Your task to perform on an android device: create a new album in the google photos Image 0: 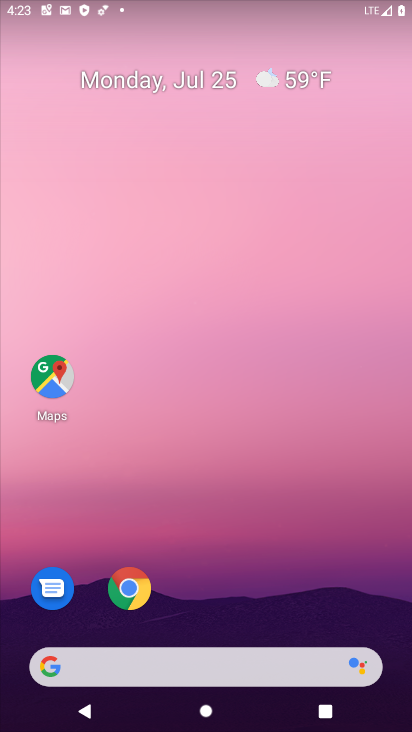
Step 0: drag from (324, 576) to (347, 27)
Your task to perform on an android device: create a new album in the google photos Image 1: 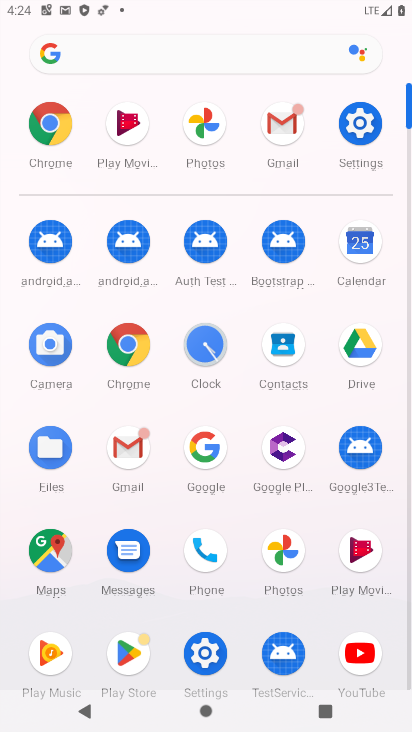
Step 1: click (274, 547)
Your task to perform on an android device: create a new album in the google photos Image 2: 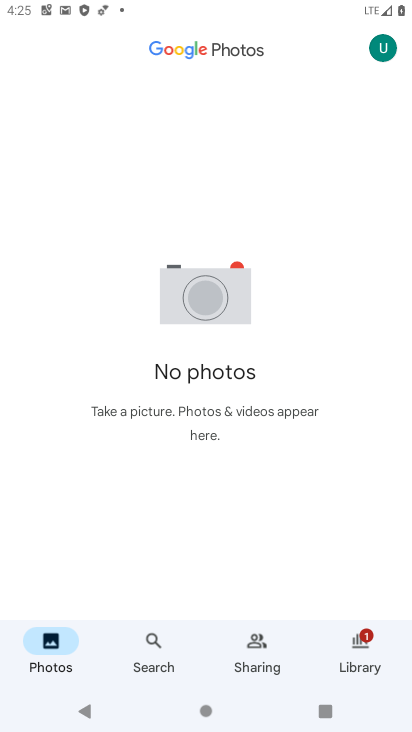
Step 2: task complete